Your task to perform on an android device: Show me productivity apps on the Play Store Image 0: 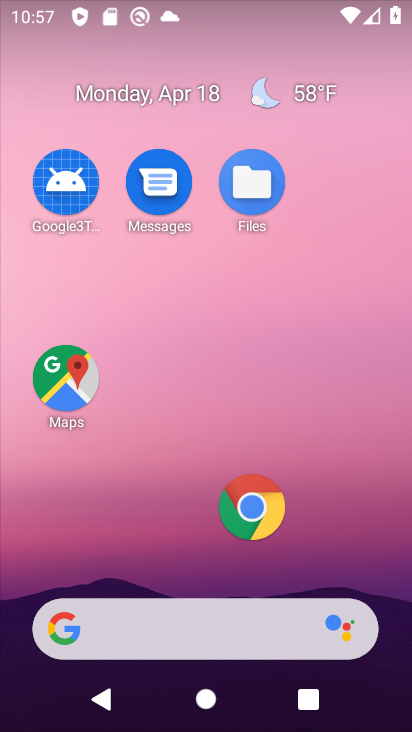
Step 0: drag from (187, 594) to (264, 13)
Your task to perform on an android device: Show me productivity apps on the Play Store Image 1: 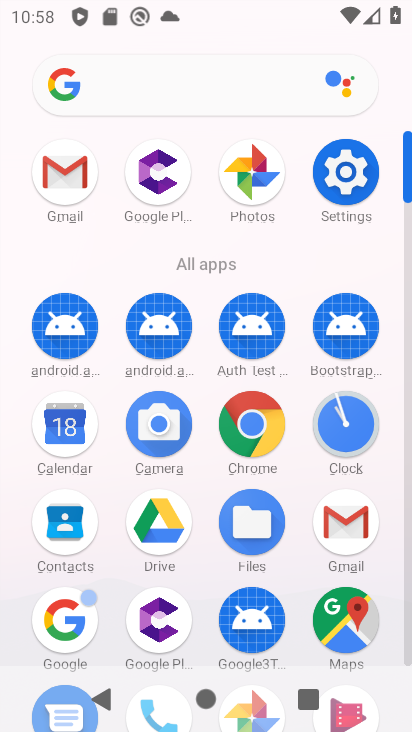
Step 1: drag from (289, 557) to (289, 143)
Your task to perform on an android device: Show me productivity apps on the Play Store Image 2: 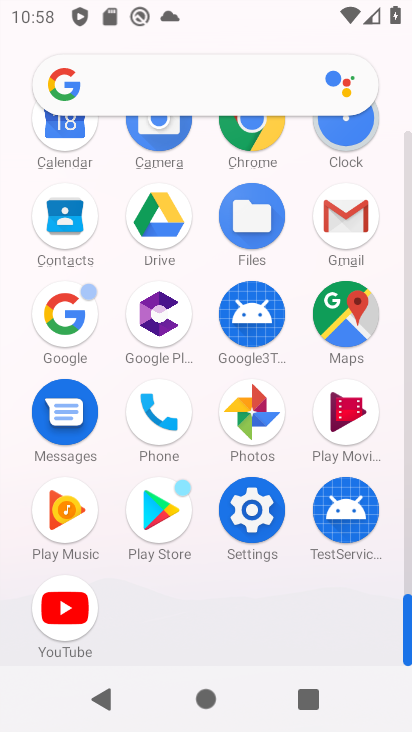
Step 2: click (168, 530)
Your task to perform on an android device: Show me productivity apps on the Play Store Image 3: 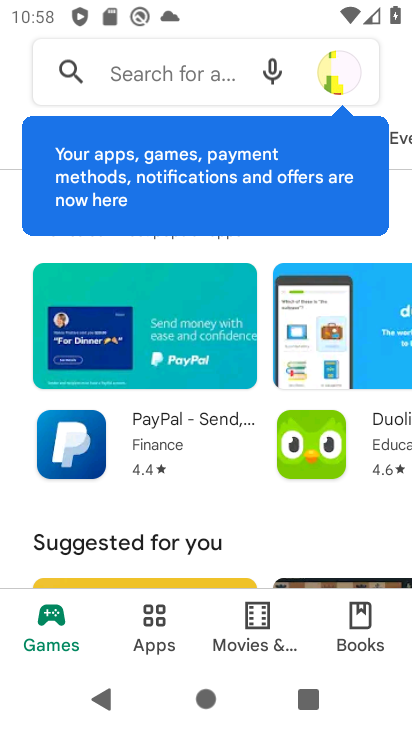
Step 3: click (168, 619)
Your task to perform on an android device: Show me productivity apps on the Play Store Image 4: 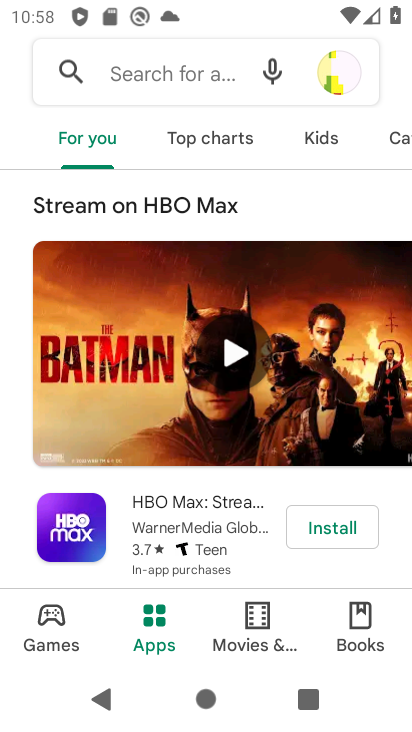
Step 4: drag from (352, 135) to (102, 139)
Your task to perform on an android device: Show me productivity apps on the Play Store Image 5: 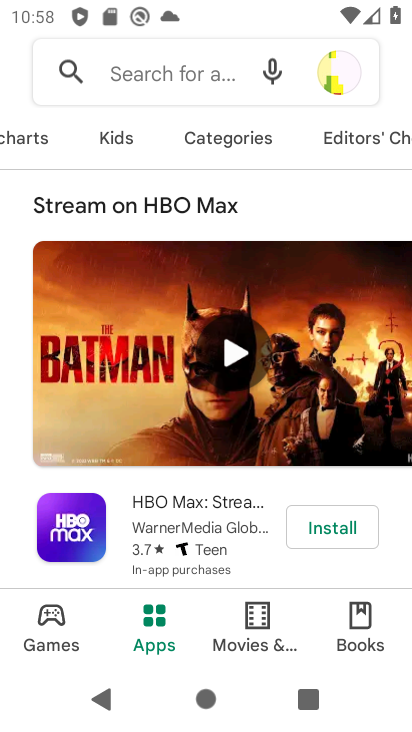
Step 5: drag from (341, 134) to (235, 125)
Your task to perform on an android device: Show me productivity apps on the Play Store Image 6: 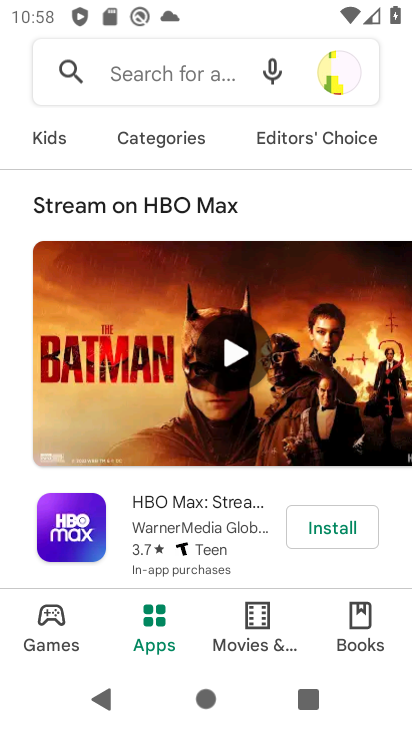
Step 6: click (180, 134)
Your task to perform on an android device: Show me productivity apps on the Play Store Image 7: 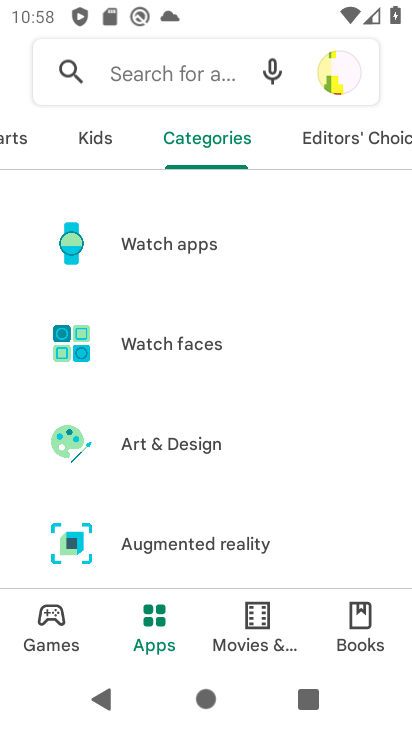
Step 7: drag from (229, 473) to (180, 156)
Your task to perform on an android device: Show me productivity apps on the Play Store Image 8: 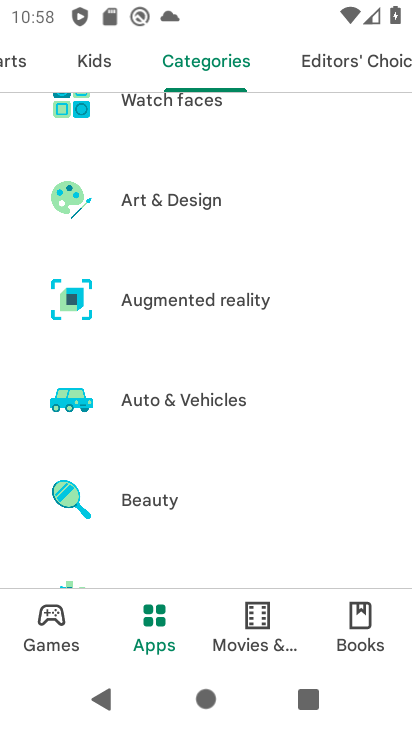
Step 8: drag from (193, 505) to (172, 140)
Your task to perform on an android device: Show me productivity apps on the Play Store Image 9: 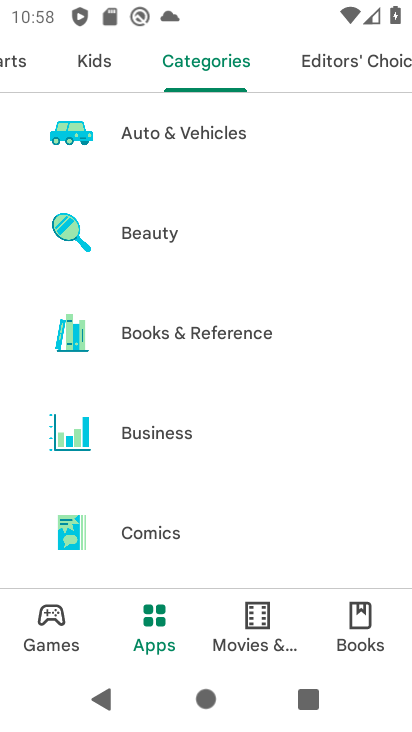
Step 9: drag from (181, 518) to (170, 105)
Your task to perform on an android device: Show me productivity apps on the Play Store Image 10: 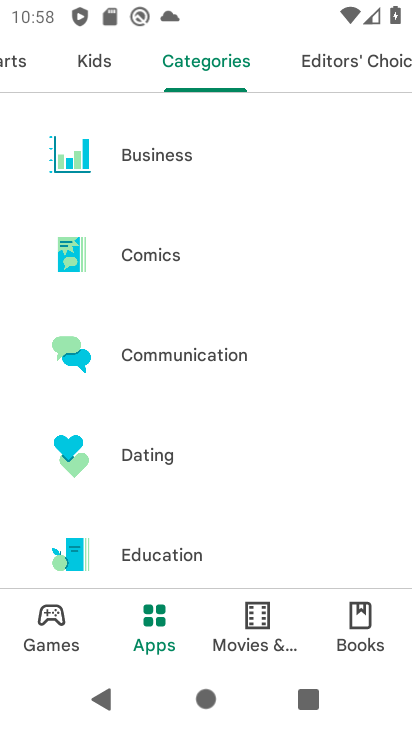
Step 10: drag from (188, 468) to (188, 104)
Your task to perform on an android device: Show me productivity apps on the Play Store Image 11: 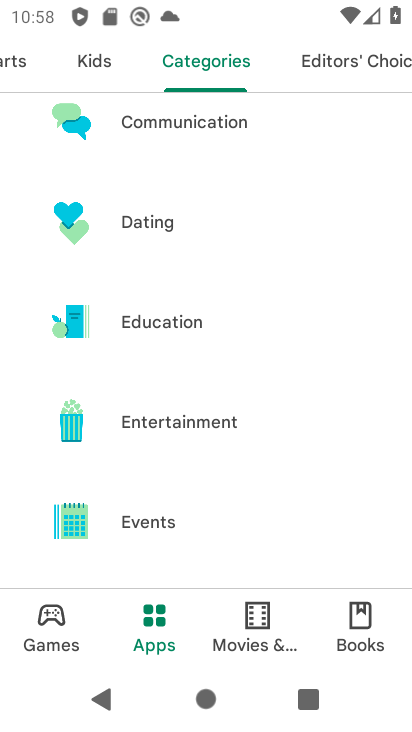
Step 11: drag from (200, 496) to (134, 7)
Your task to perform on an android device: Show me productivity apps on the Play Store Image 12: 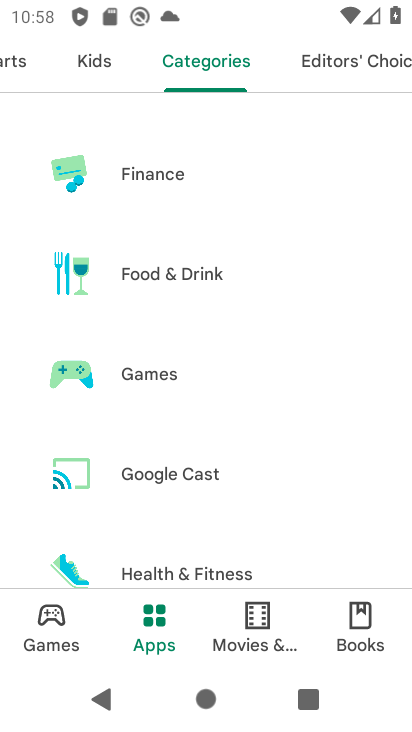
Step 12: drag from (171, 438) to (157, 0)
Your task to perform on an android device: Show me productivity apps on the Play Store Image 13: 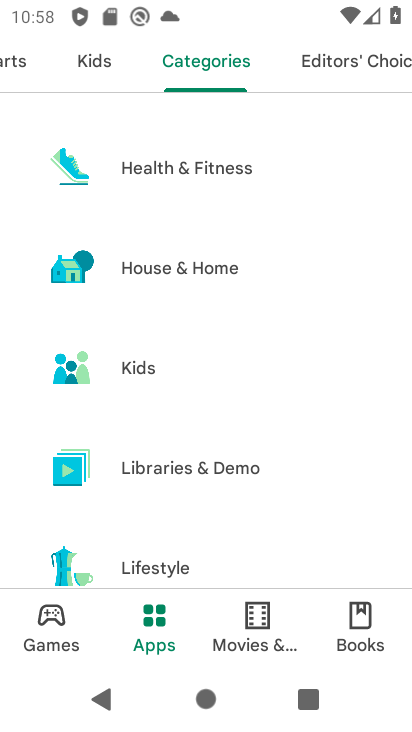
Step 13: drag from (198, 435) to (184, 28)
Your task to perform on an android device: Show me productivity apps on the Play Store Image 14: 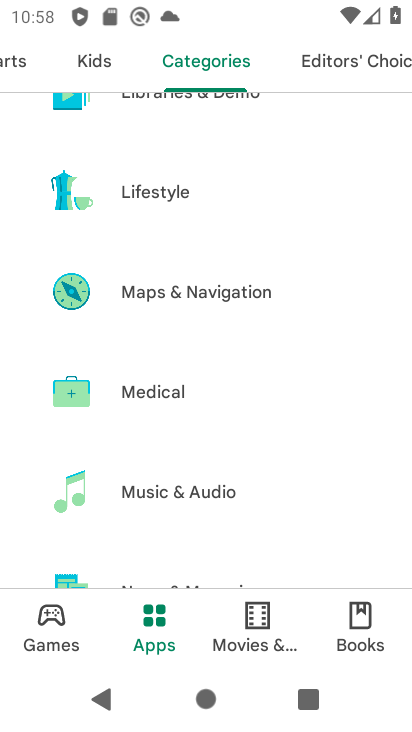
Step 14: drag from (211, 526) to (189, 1)
Your task to perform on an android device: Show me productivity apps on the Play Store Image 15: 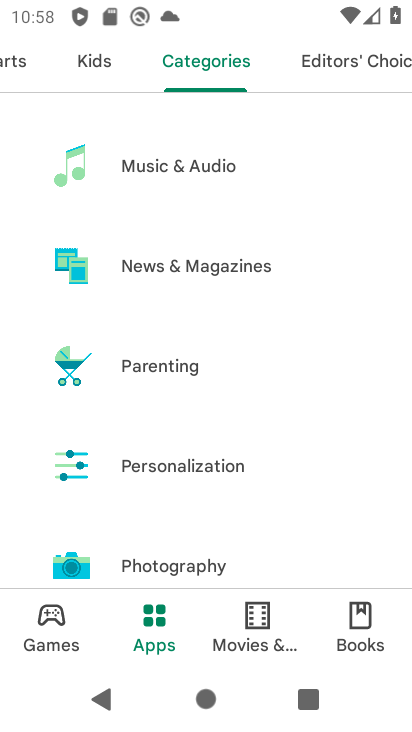
Step 15: drag from (200, 551) to (193, 129)
Your task to perform on an android device: Show me productivity apps on the Play Store Image 16: 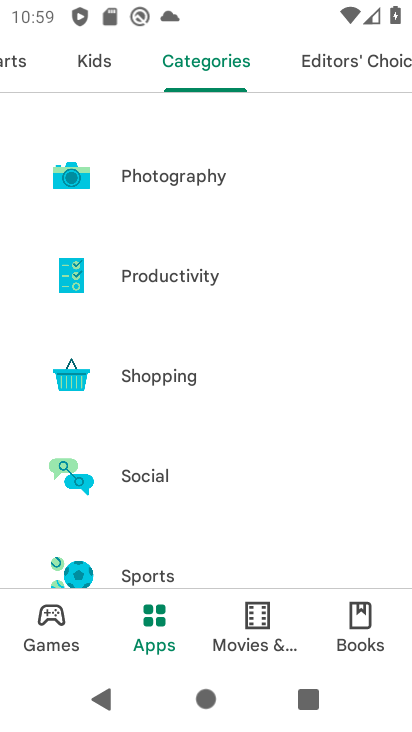
Step 16: click (166, 280)
Your task to perform on an android device: Show me productivity apps on the Play Store Image 17: 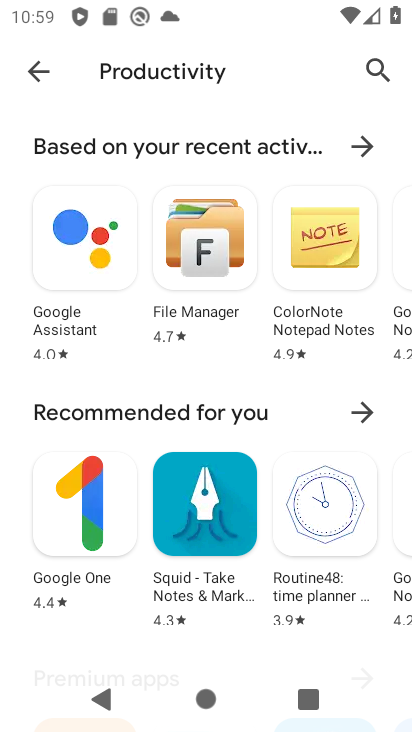
Step 17: task complete